Your task to perform on an android device: visit the assistant section in the google photos Image 0: 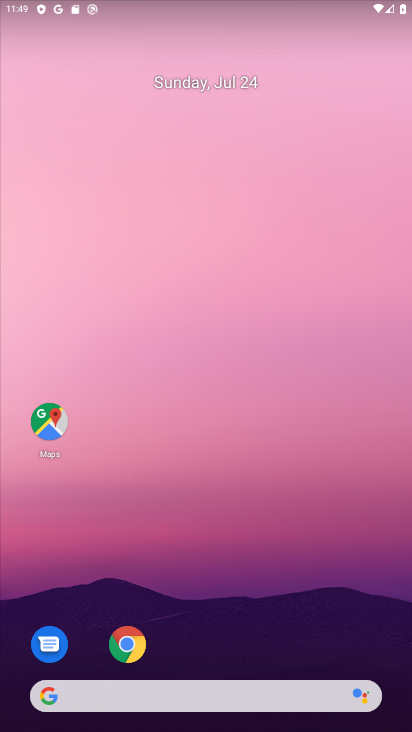
Step 0: drag from (174, 638) to (184, 275)
Your task to perform on an android device: visit the assistant section in the google photos Image 1: 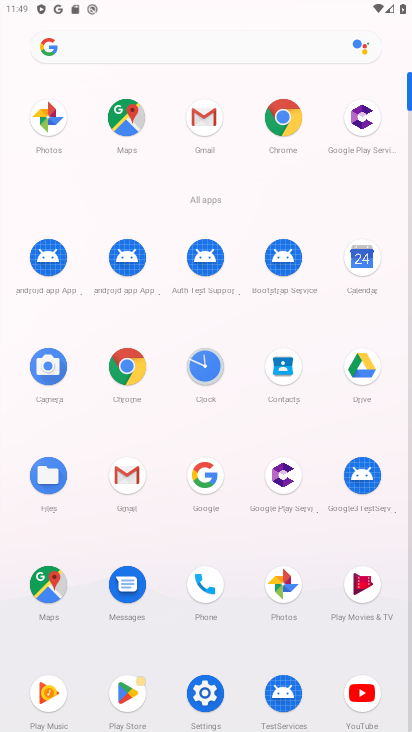
Step 1: click (60, 111)
Your task to perform on an android device: visit the assistant section in the google photos Image 2: 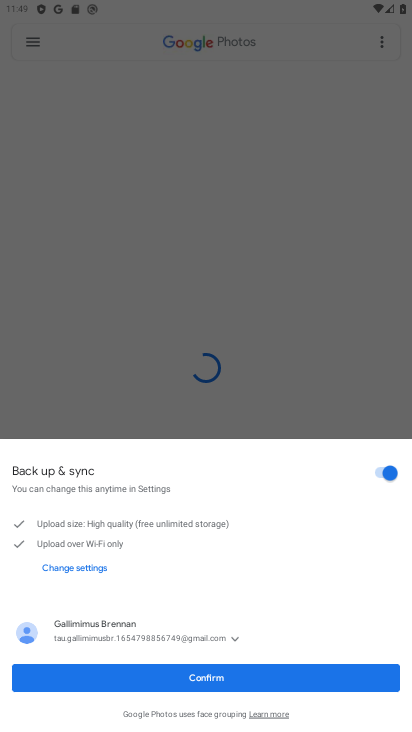
Step 2: click (170, 683)
Your task to perform on an android device: visit the assistant section in the google photos Image 3: 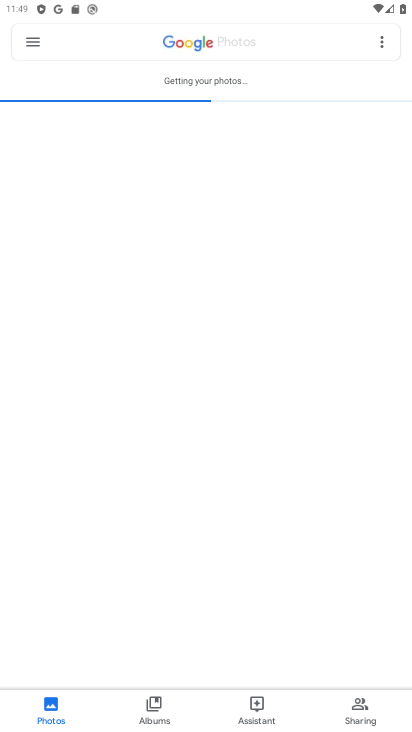
Step 3: click (255, 702)
Your task to perform on an android device: visit the assistant section in the google photos Image 4: 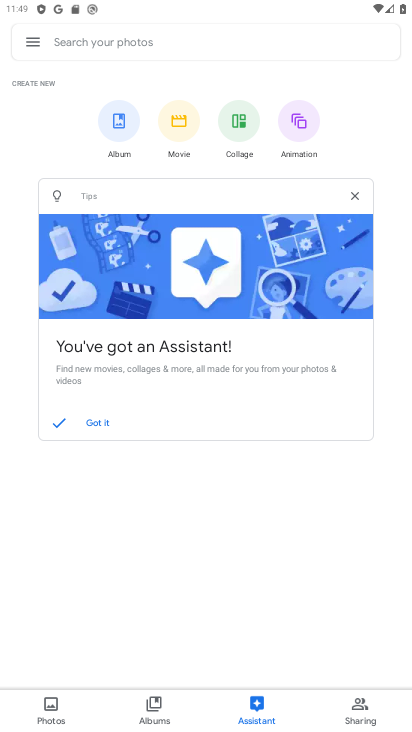
Step 4: task complete